Your task to perform on an android device: open a bookmark in the chrome app Image 0: 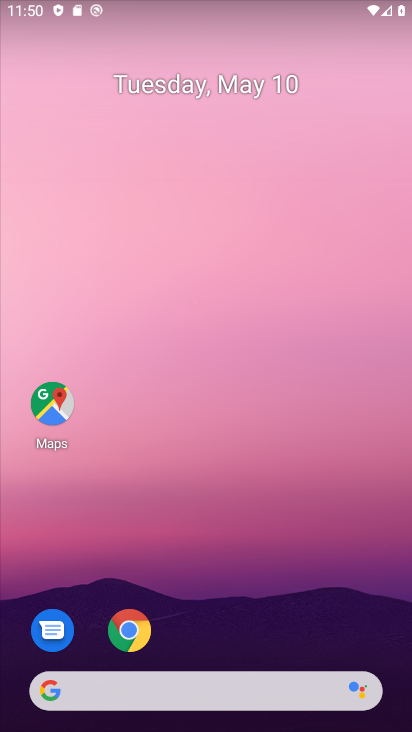
Step 0: click (128, 628)
Your task to perform on an android device: open a bookmark in the chrome app Image 1: 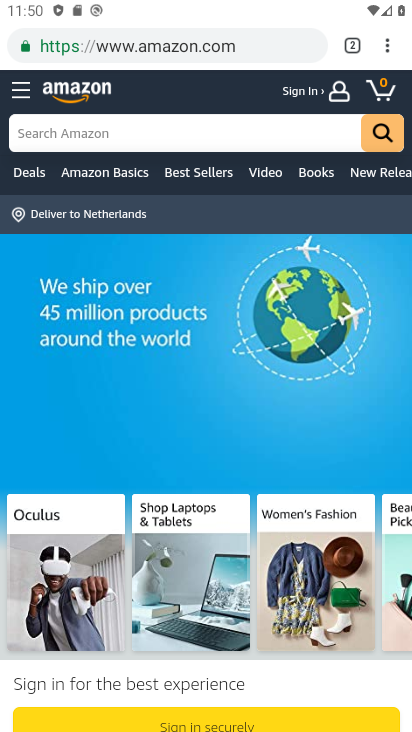
Step 1: click (383, 41)
Your task to perform on an android device: open a bookmark in the chrome app Image 2: 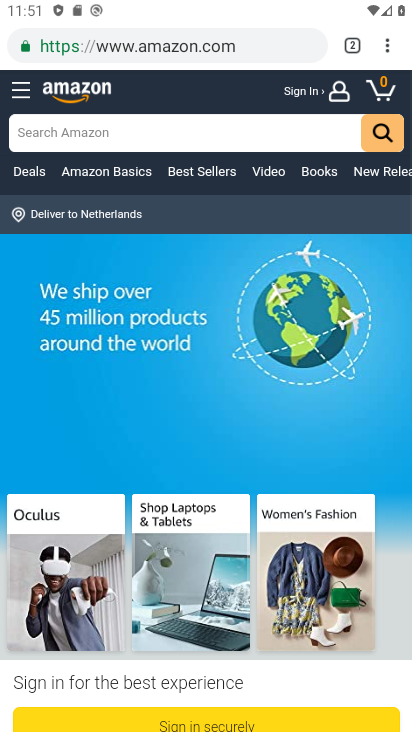
Step 2: task complete